Your task to perform on an android device: turn pop-ups on in chrome Image 0: 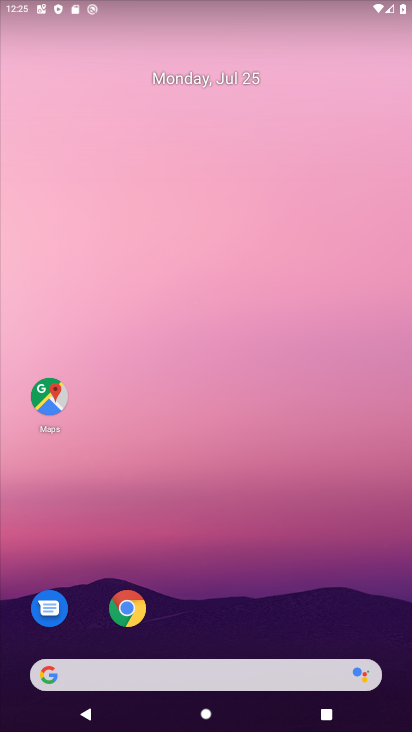
Step 0: click (132, 610)
Your task to perform on an android device: turn pop-ups on in chrome Image 1: 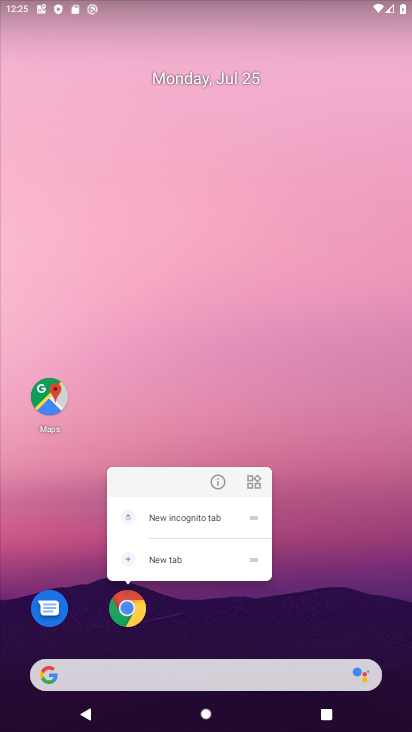
Step 1: click (132, 610)
Your task to perform on an android device: turn pop-ups on in chrome Image 2: 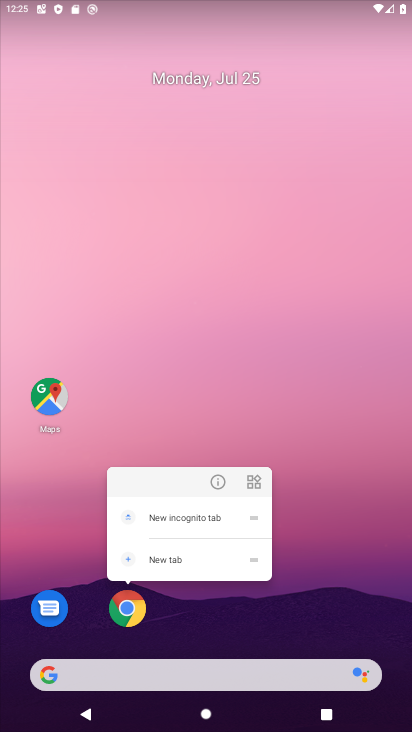
Step 2: click (132, 610)
Your task to perform on an android device: turn pop-ups on in chrome Image 3: 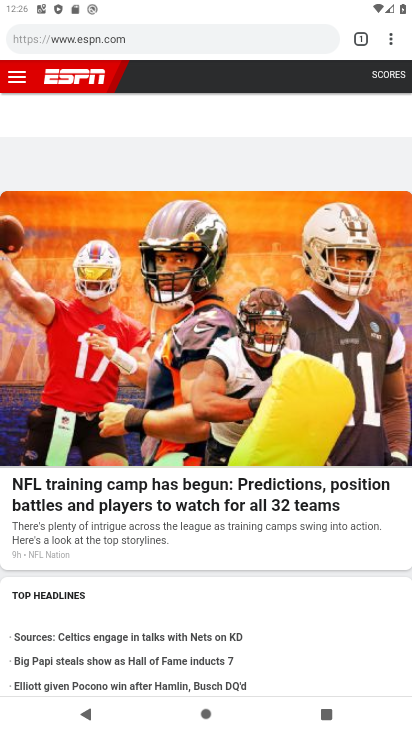
Step 3: drag from (388, 33) to (252, 484)
Your task to perform on an android device: turn pop-ups on in chrome Image 4: 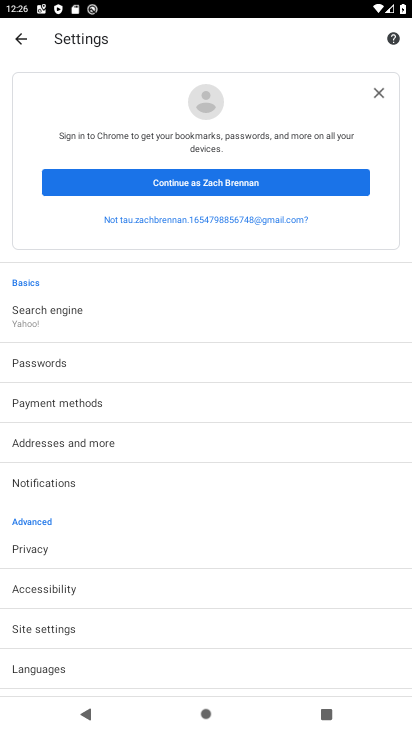
Step 4: click (73, 623)
Your task to perform on an android device: turn pop-ups on in chrome Image 5: 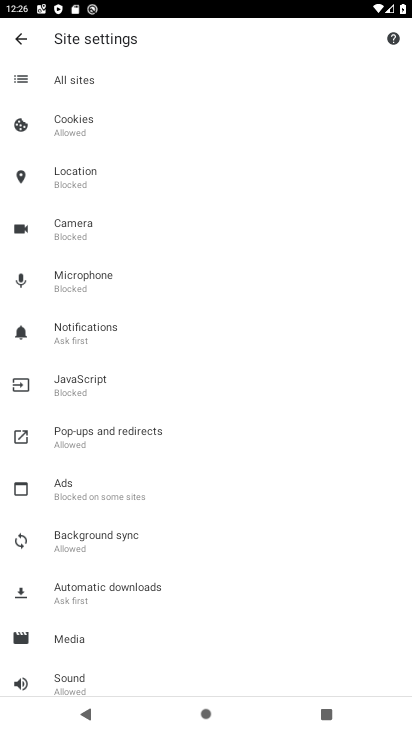
Step 5: click (85, 431)
Your task to perform on an android device: turn pop-ups on in chrome Image 6: 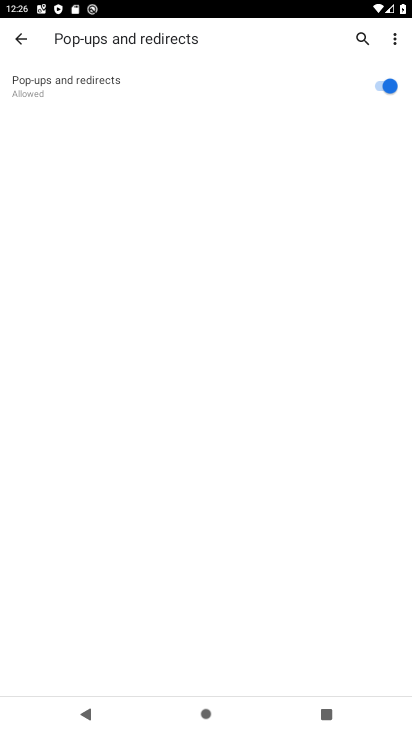
Step 6: task complete